Your task to perform on an android device: toggle wifi Image 0: 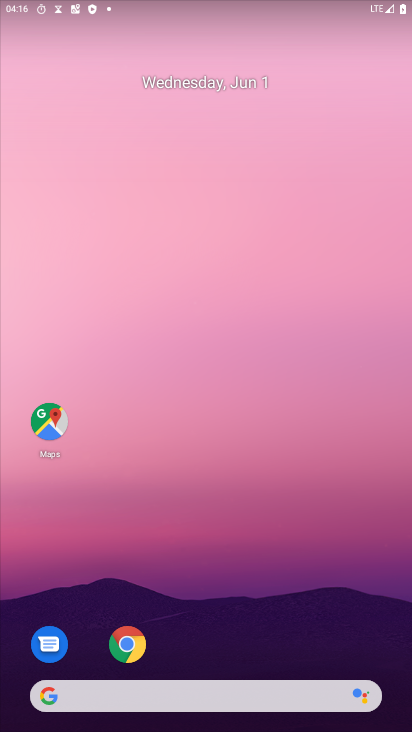
Step 0: press home button
Your task to perform on an android device: toggle wifi Image 1: 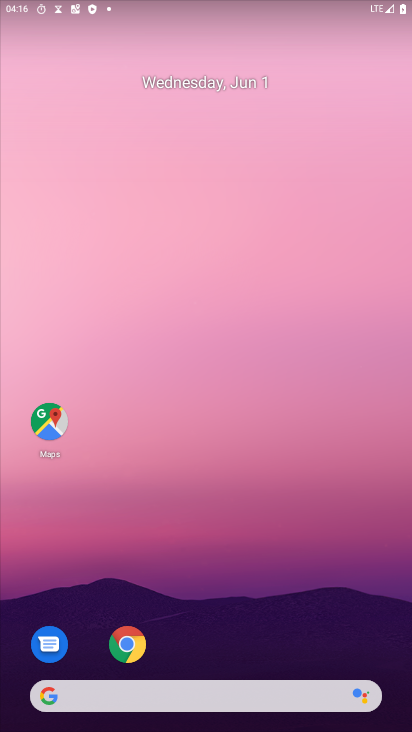
Step 1: drag from (182, 2) to (186, 266)
Your task to perform on an android device: toggle wifi Image 2: 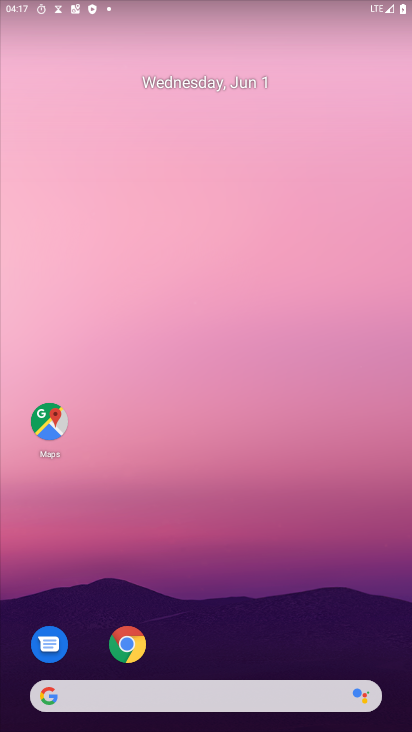
Step 2: drag from (184, 26) to (176, 284)
Your task to perform on an android device: toggle wifi Image 3: 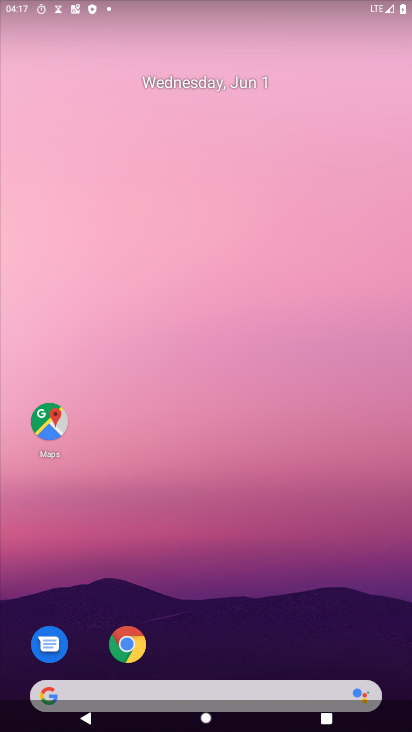
Step 3: drag from (198, 10) to (194, 381)
Your task to perform on an android device: toggle wifi Image 4: 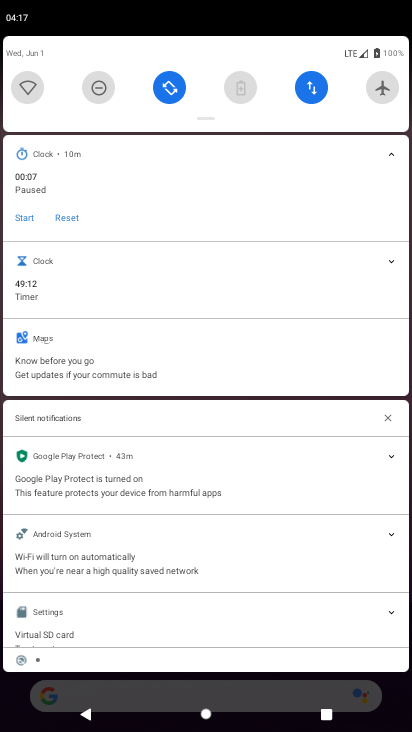
Step 4: click (25, 84)
Your task to perform on an android device: toggle wifi Image 5: 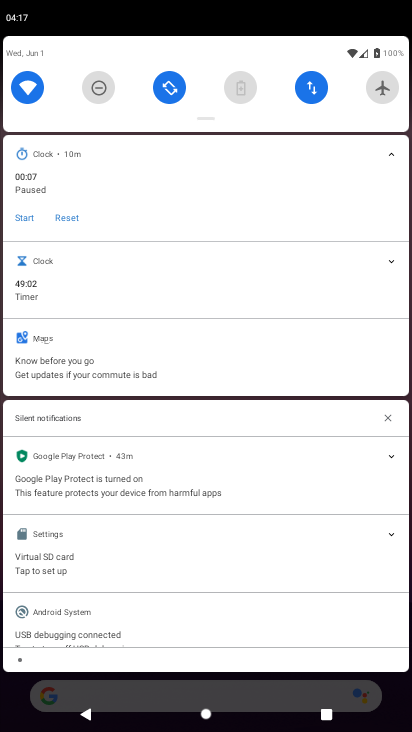
Step 5: task complete